Your task to perform on an android device: Open the stopwatch Image 0: 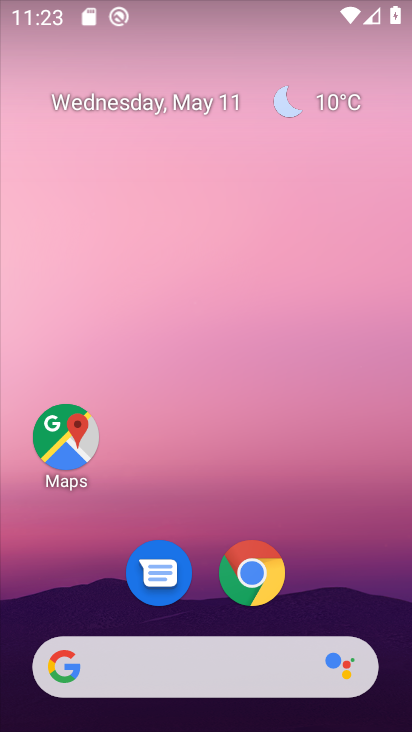
Step 0: drag from (225, 183) to (258, 61)
Your task to perform on an android device: Open the stopwatch Image 1: 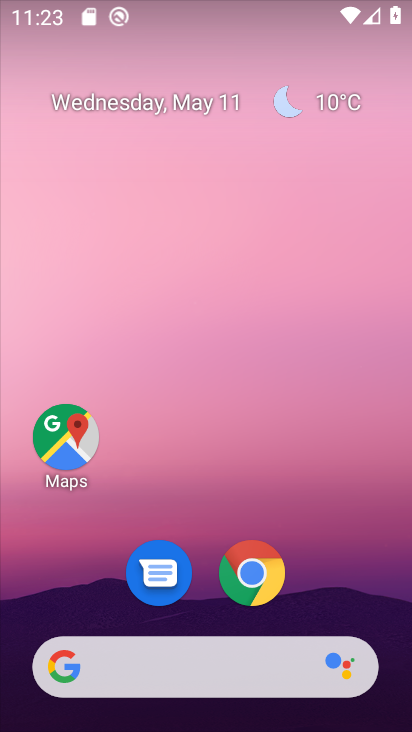
Step 1: drag from (187, 604) to (298, 61)
Your task to perform on an android device: Open the stopwatch Image 2: 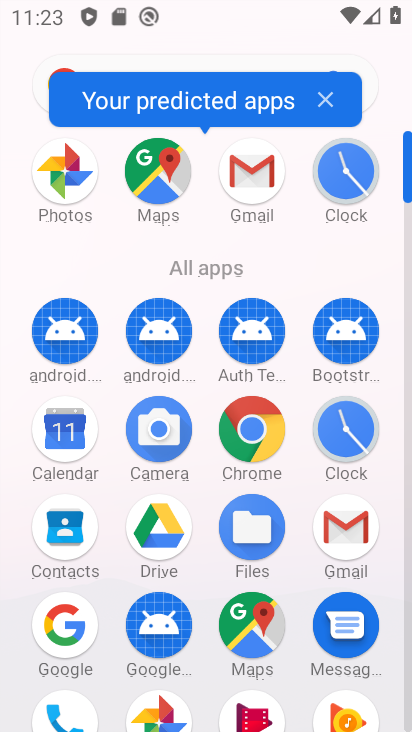
Step 2: click (337, 419)
Your task to perform on an android device: Open the stopwatch Image 3: 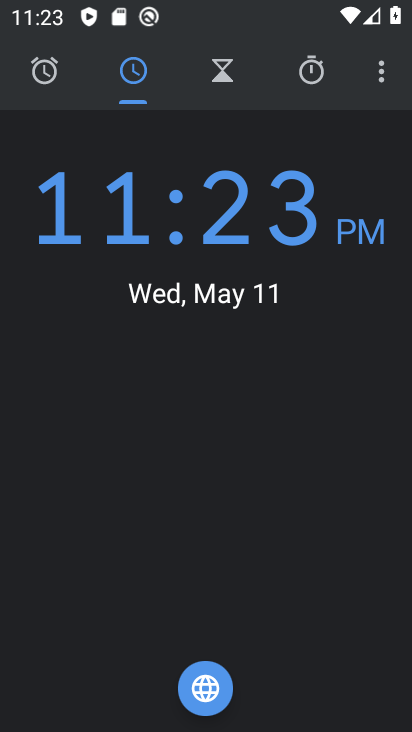
Step 3: click (308, 78)
Your task to perform on an android device: Open the stopwatch Image 4: 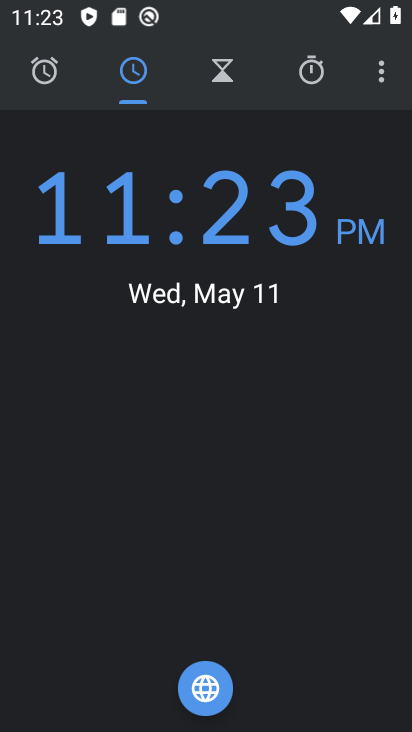
Step 4: click (309, 78)
Your task to perform on an android device: Open the stopwatch Image 5: 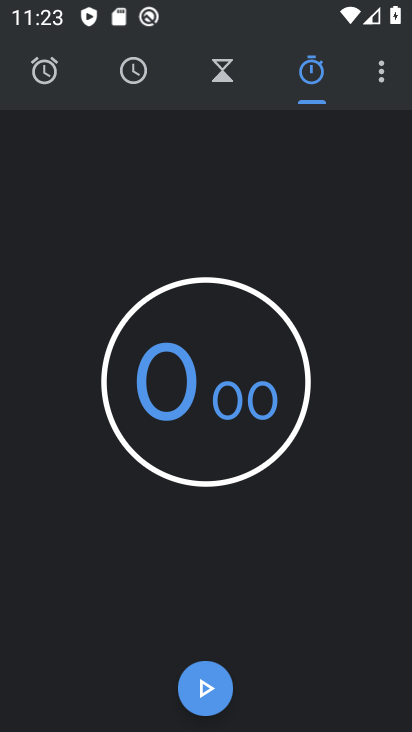
Step 5: task complete